Your task to perform on an android device: Go to battery settings Image 0: 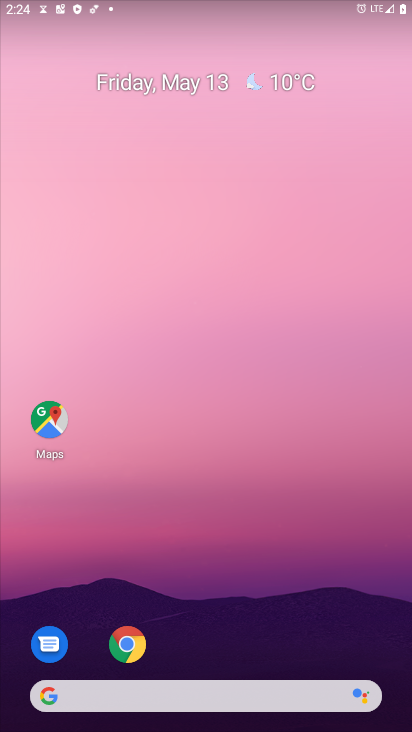
Step 0: drag from (166, 727) to (207, 175)
Your task to perform on an android device: Go to battery settings Image 1: 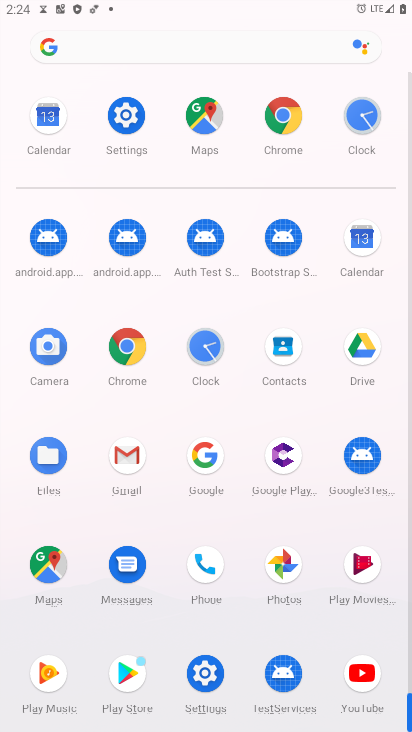
Step 1: click (122, 110)
Your task to perform on an android device: Go to battery settings Image 2: 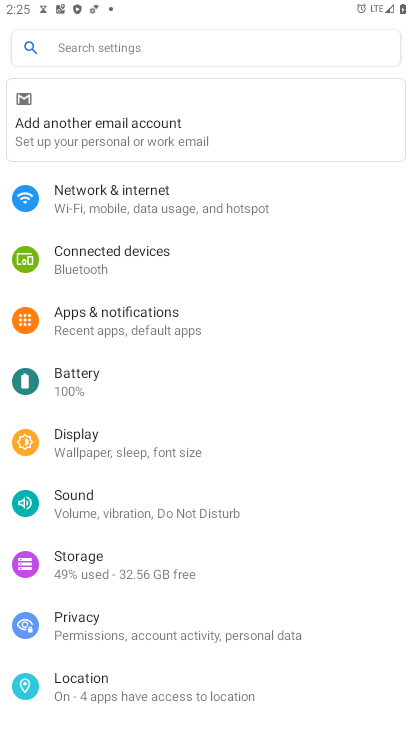
Step 2: click (72, 377)
Your task to perform on an android device: Go to battery settings Image 3: 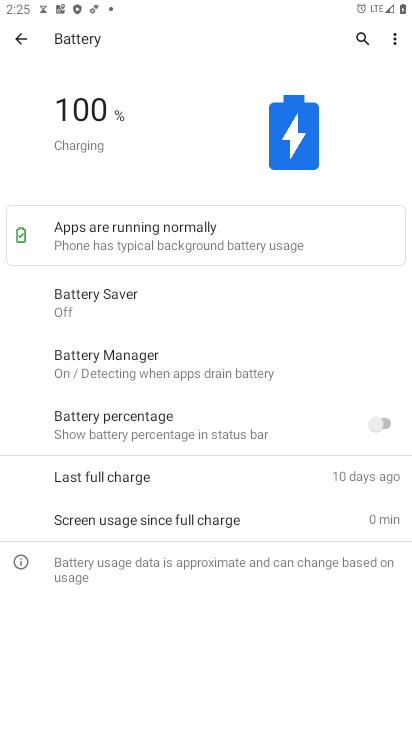
Step 3: task complete